Your task to perform on an android device: Open Google Image 0: 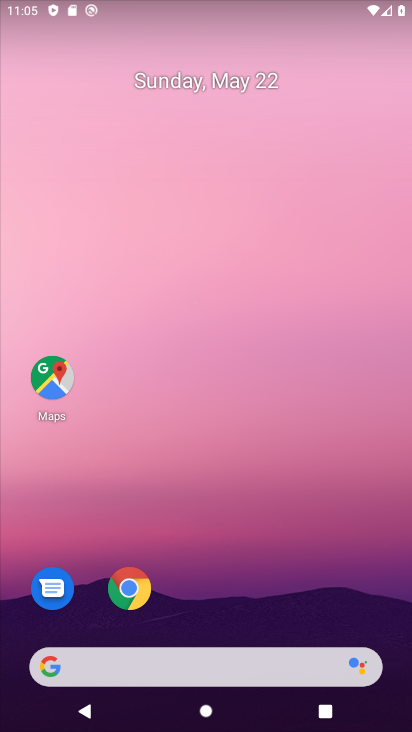
Step 0: click (269, 648)
Your task to perform on an android device: Open Google Image 1: 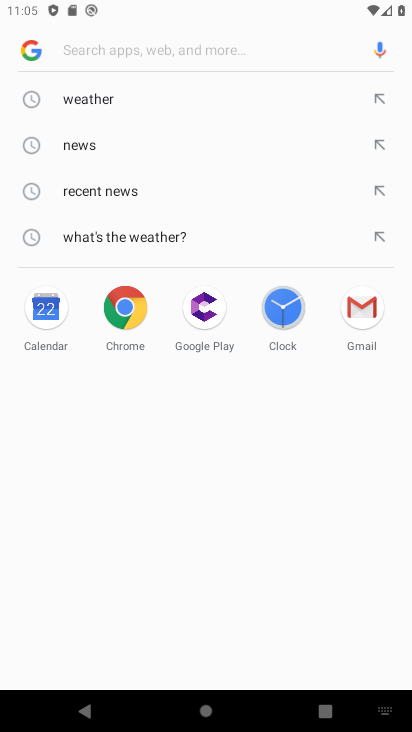
Step 1: task complete